Your task to perform on an android device: turn off improve location accuracy Image 0: 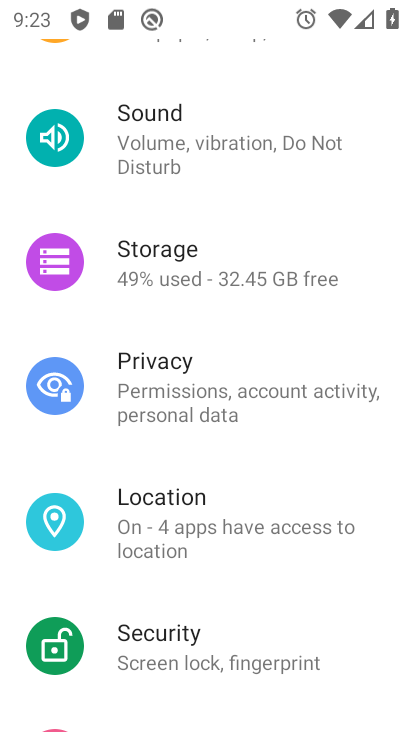
Step 0: press home button
Your task to perform on an android device: turn off improve location accuracy Image 1: 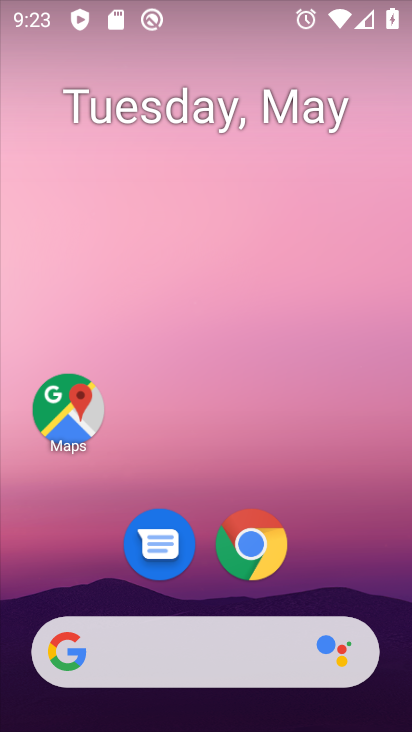
Step 1: drag from (335, 550) to (327, 200)
Your task to perform on an android device: turn off improve location accuracy Image 2: 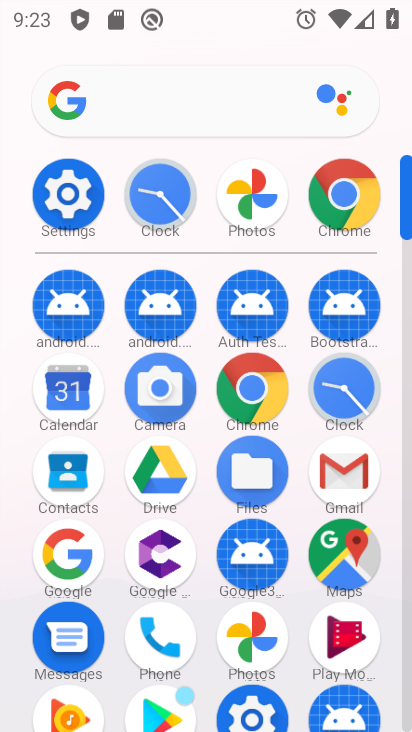
Step 2: click (93, 189)
Your task to perform on an android device: turn off improve location accuracy Image 3: 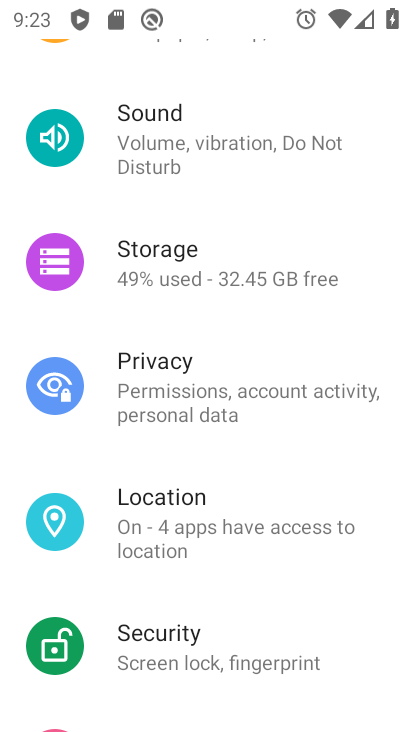
Step 3: click (194, 504)
Your task to perform on an android device: turn off improve location accuracy Image 4: 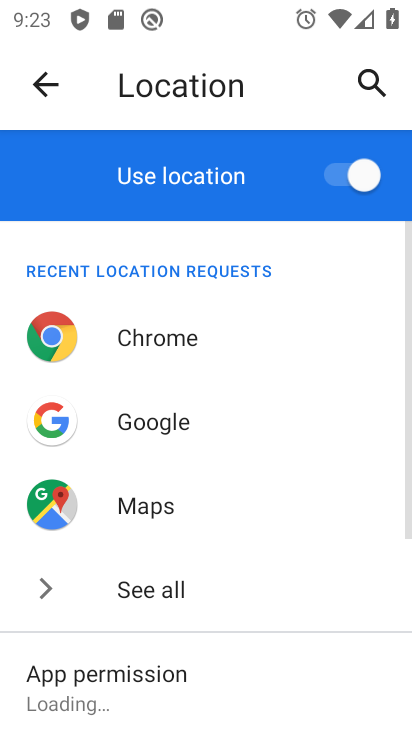
Step 4: drag from (282, 604) to (280, 373)
Your task to perform on an android device: turn off improve location accuracy Image 5: 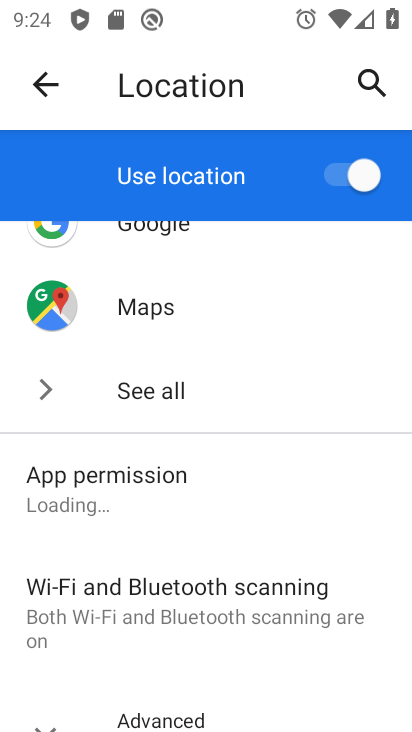
Step 5: drag from (295, 615) to (336, 331)
Your task to perform on an android device: turn off improve location accuracy Image 6: 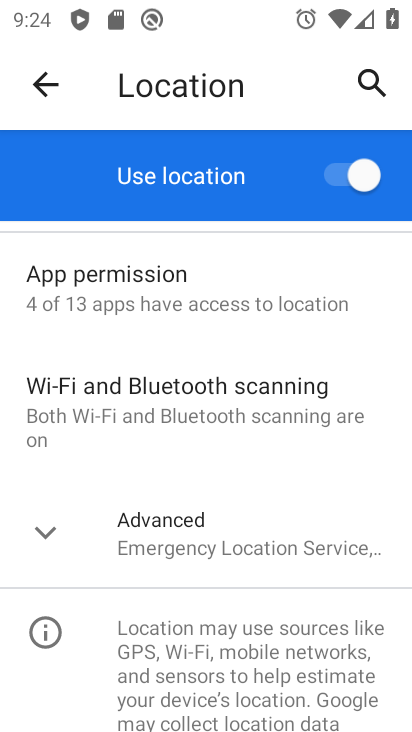
Step 6: click (272, 559)
Your task to perform on an android device: turn off improve location accuracy Image 7: 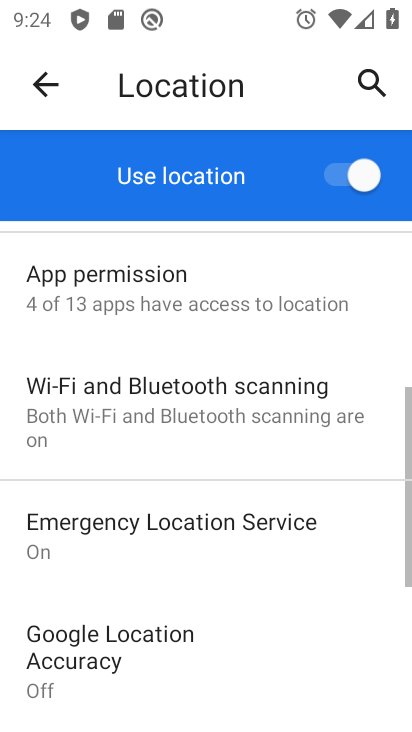
Step 7: task complete